Your task to perform on an android device: find which apps use the phone's location Image 0: 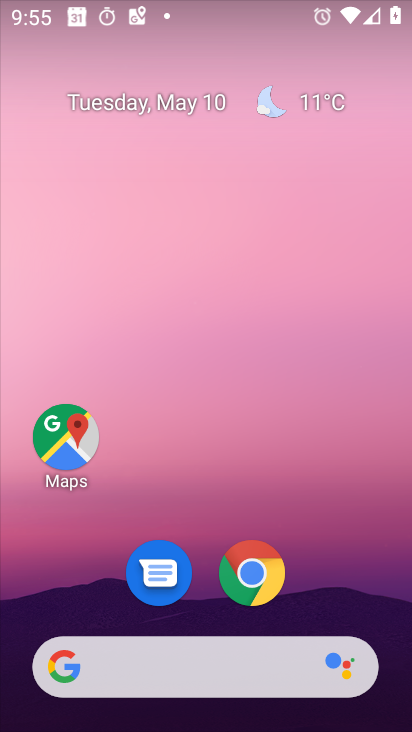
Step 0: drag from (362, 598) to (359, 103)
Your task to perform on an android device: find which apps use the phone's location Image 1: 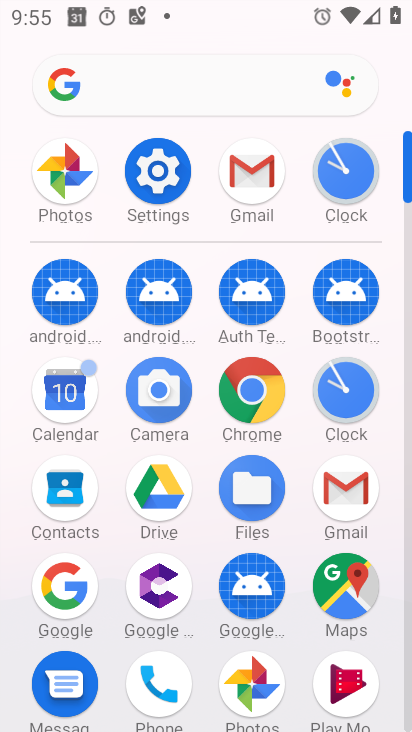
Step 1: click (155, 169)
Your task to perform on an android device: find which apps use the phone's location Image 2: 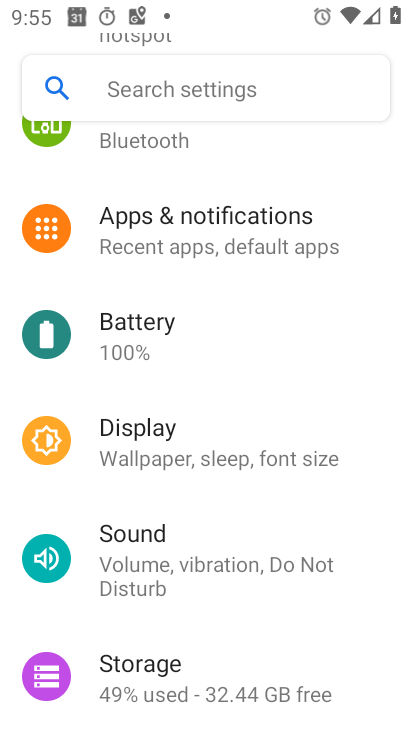
Step 2: drag from (294, 531) to (301, 220)
Your task to perform on an android device: find which apps use the phone's location Image 3: 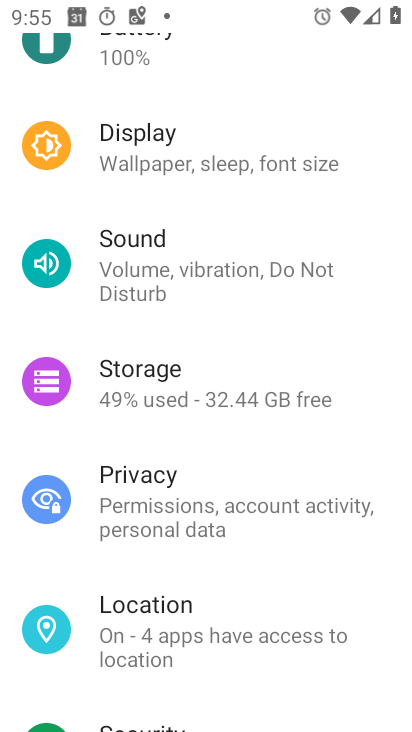
Step 3: click (135, 620)
Your task to perform on an android device: find which apps use the phone's location Image 4: 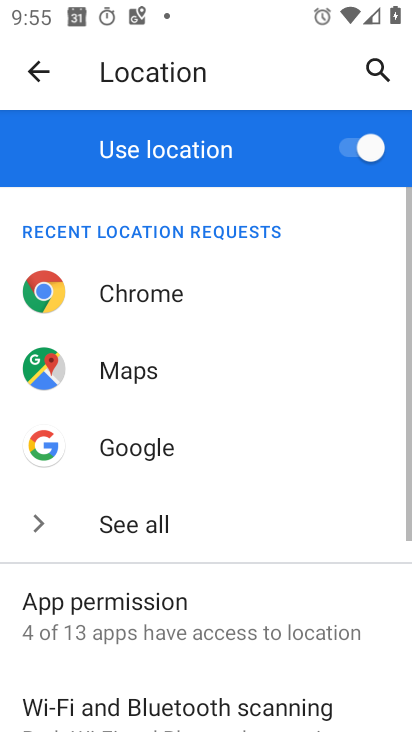
Step 4: click (90, 613)
Your task to perform on an android device: find which apps use the phone's location Image 5: 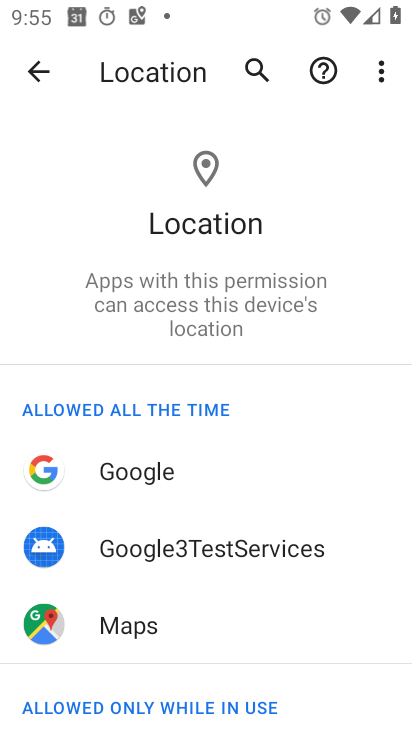
Step 5: task complete